Your task to perform on an android device: What's the weather today? Image 0: 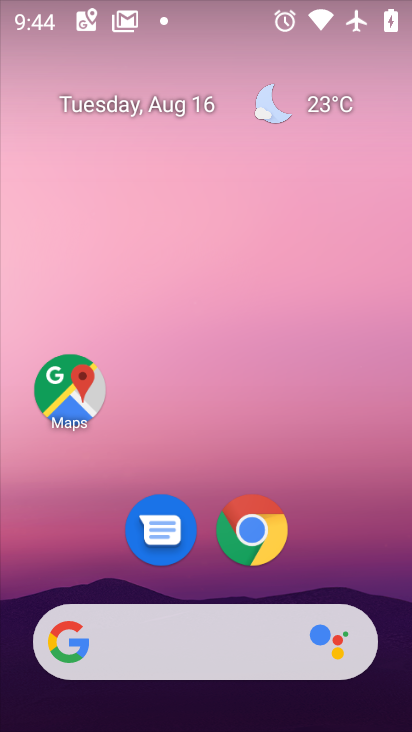
Step 0: drag from (344, 466) to (324, 69)
Your task to perform on an android device: What's the weather today? Image 1: 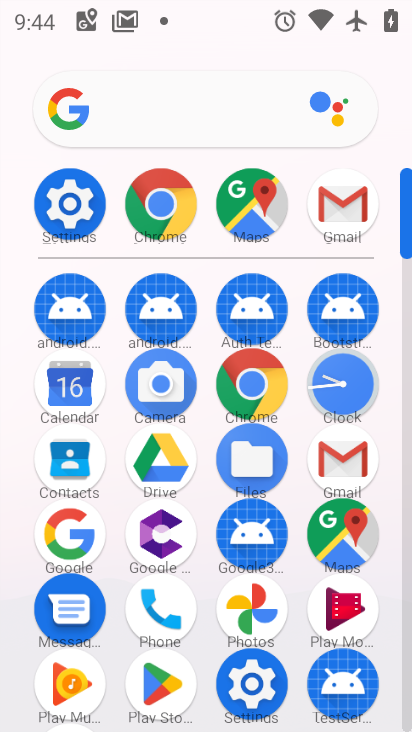
Step 1: click (256, 383)
Your task to perform on an android device: What's the weather today? Image 2: 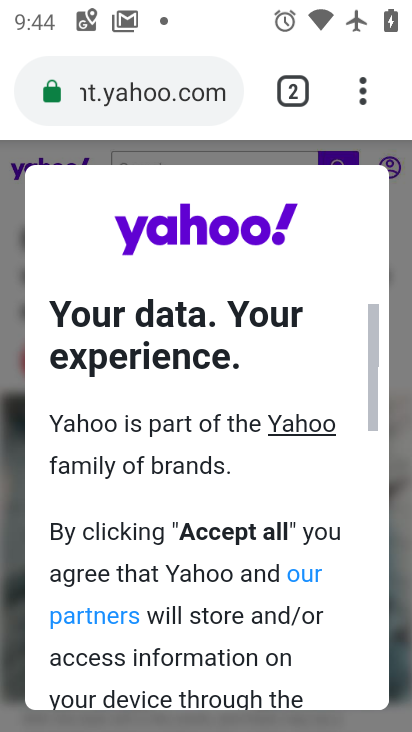
Step 2: click (228, 99)
Your task to perform on an android device: What's the weather today? Image 3: 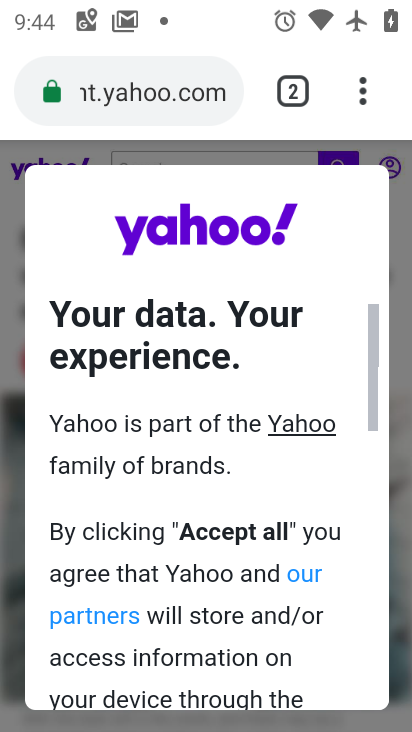
Step 3: click (129, 98)
Your task to perform on an android device: What's the weather today? Image 4: 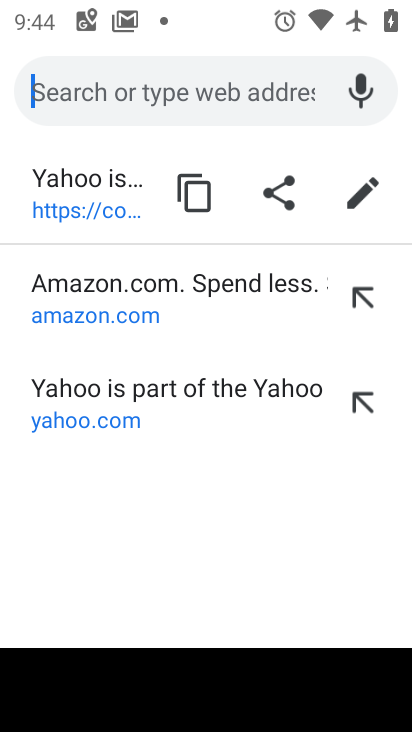
Step 4: type "weather"
Your task to perform on an android device: What's the weather today? Image 5: 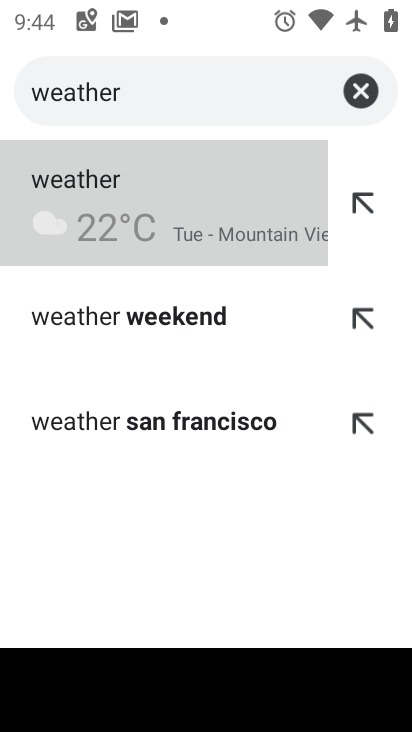
Step 5: click (150, 225)
Your task to perform on an android device: What's the weather today? Image 6: 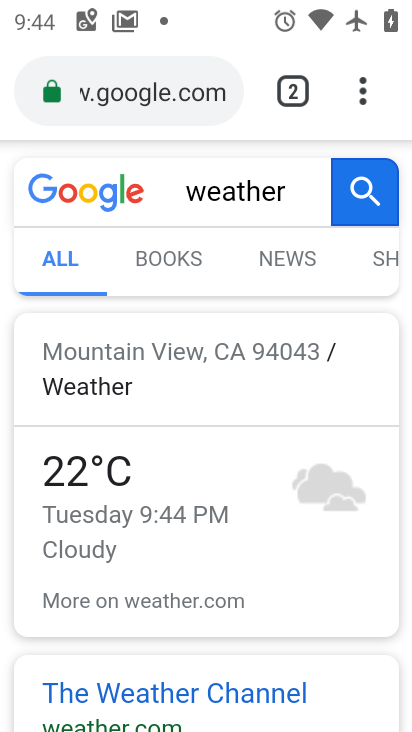
Step 6: task complete